Your task to perform on an android device: add a contact Image 0: 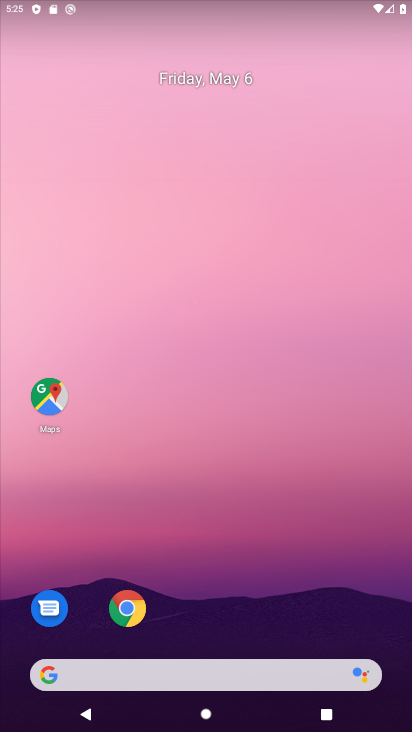
Step 0: drag from (288, 558) to (273, 14)
Your task to perform on an android device: add a contact Image 1: 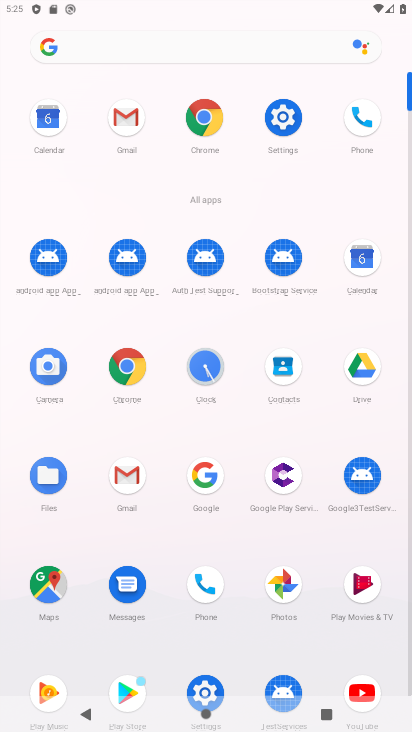
Step 1: click (291, 375)
Your task to perform on an android device: add a contact Image 2: 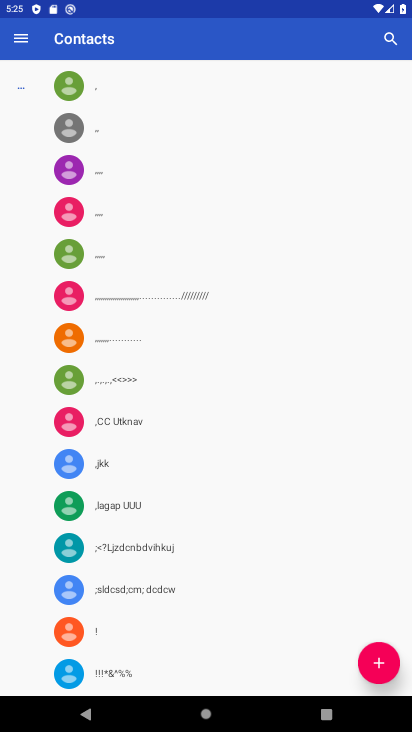
Step 2: click (368, 667)
Your task to perform on an android device: add a contact Image 3: 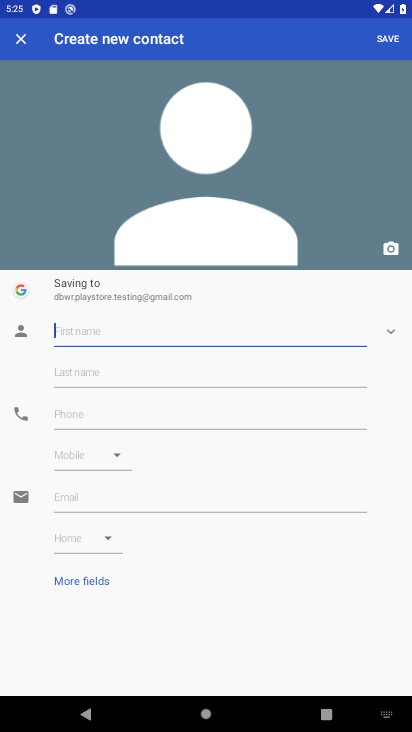
Step 3: type "sweet friend"
Your task to perform on an android device: add a contact Image 4: 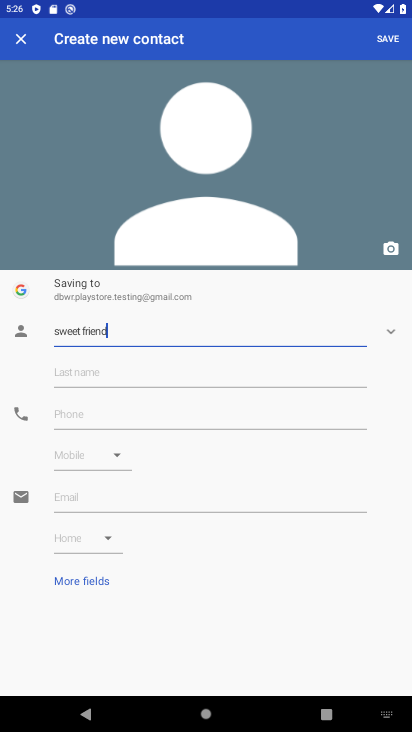
Step 4: click (122, 372)
Your task to perform on an android device: add a contact Image 5: 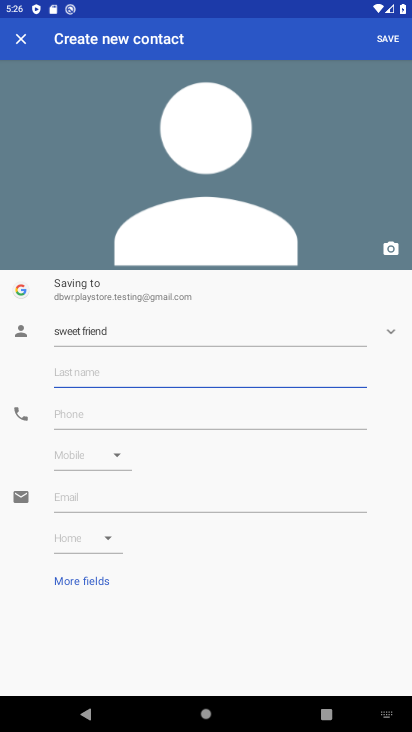
Step 5: click (146, 413)
Your task to perform on an android device: add a contact Image 6: 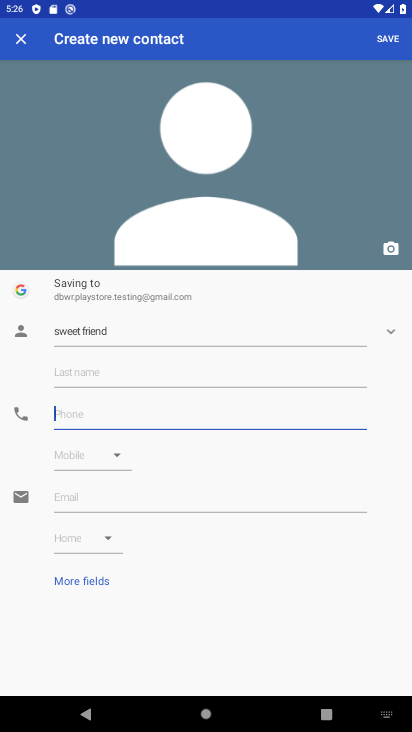
Step 6: type "9971191458"
Your task to perform on an android device: add a contact Image 7: 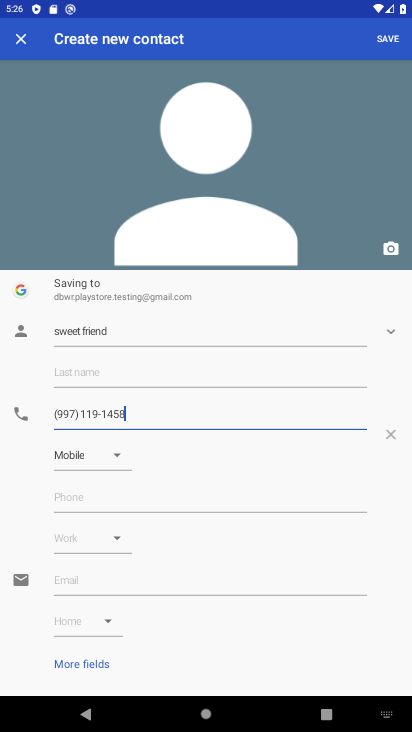
Step 7: type "7777"
Your task to perform on an android device: add a contact Image 8: 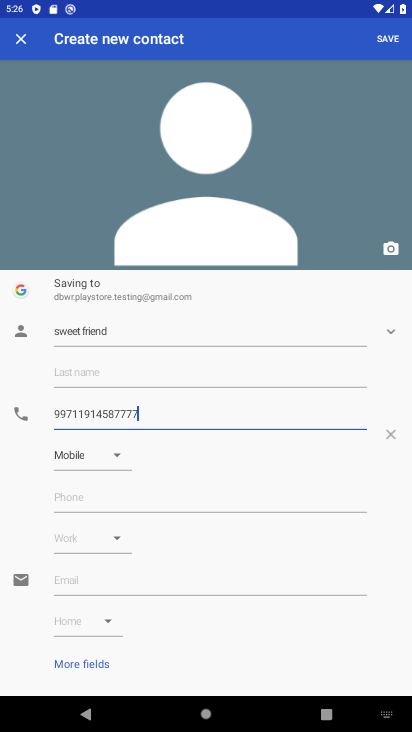
Step 8: click (392, 35)
Your task to perform on an android device: add a contact Image 9: 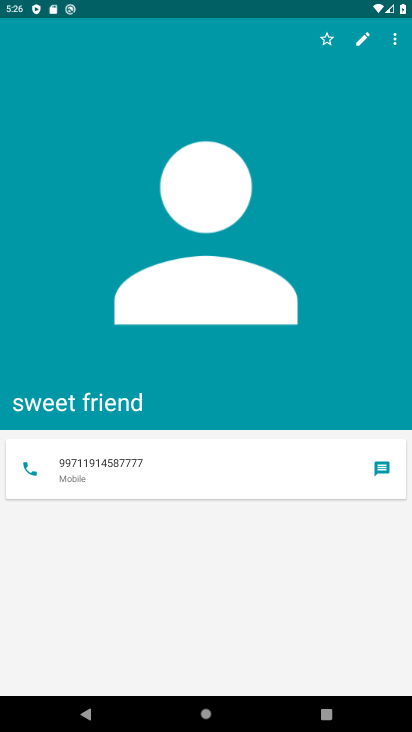
Step 9: task complete